Your task to perform on an android device: Search for the new steph curry shoes on Amazon. Image 0: 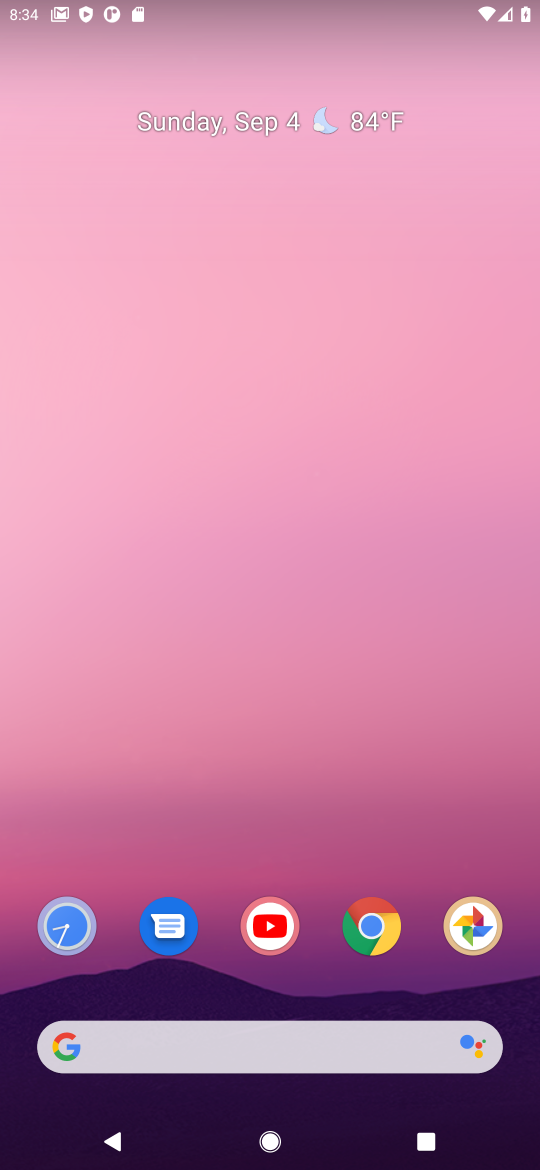
Step 0: click (241, 1042)
Your task to perform on an android device: Search for the new steph curry shoes on Amazon. Image 1: 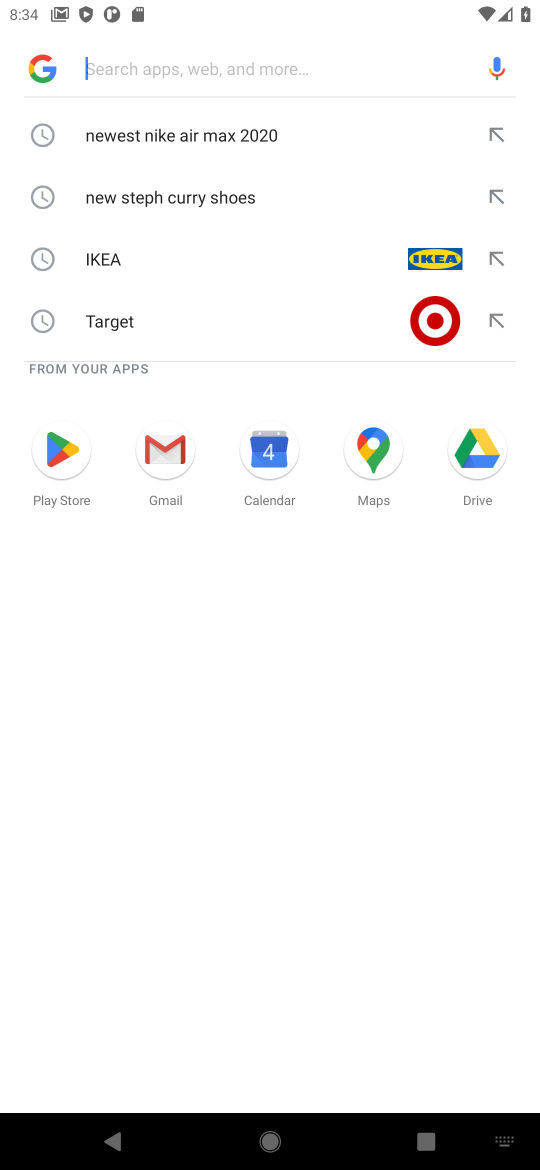
Step 1: type "amazon"
Your task to perform on an android device: Search for the new steph curry shoes on Amazon. Image 2: 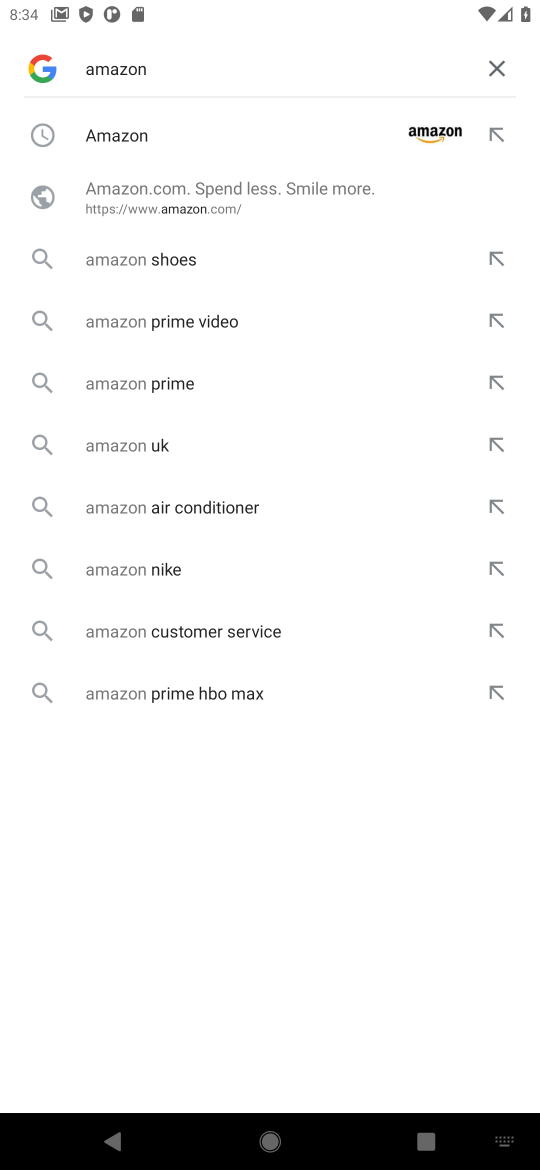
Step 2: click (104, 134)
Your task to perform on an android device: Search for the new steph curry shoes on Amazon. Image 3: 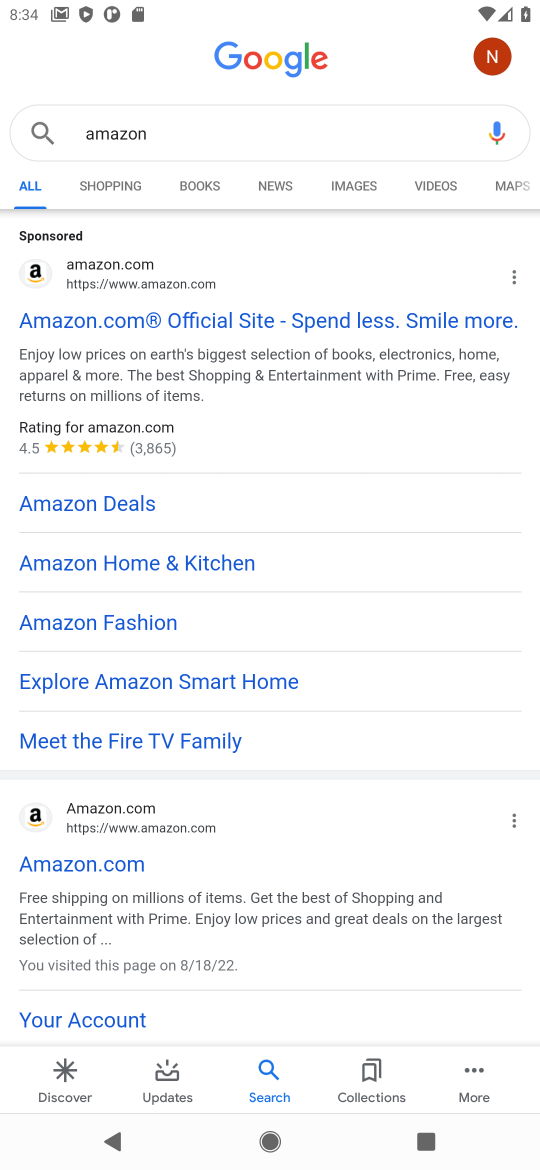
Step 3: click (93, 308)
Your task to perform on an android device: Search for the new steph curry shoes on Amazon. Image 4: 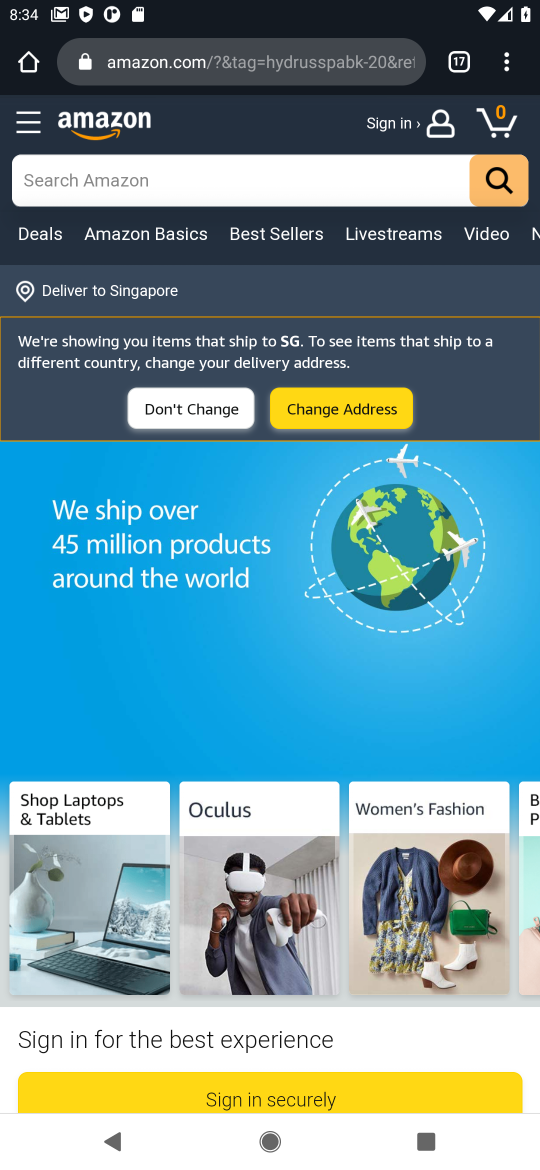
Step 4: click (278, 192)
Your task to perform on an android device: Search for the new steph curry shoes on Amazon. Image 5: 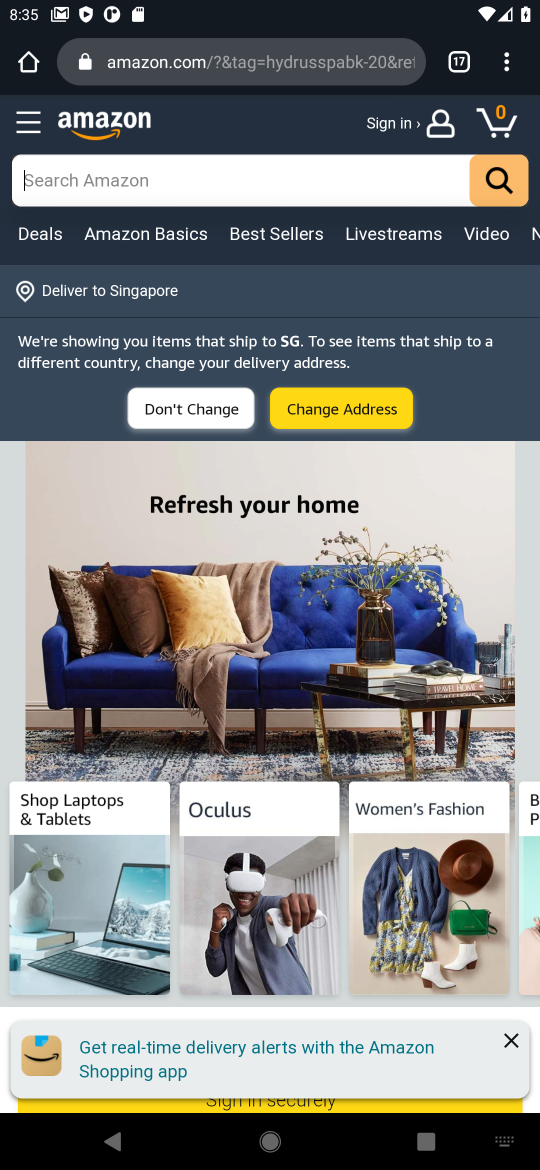
Step 5: type "new steph curry shoes"
Your task to perform on an android device: Search for the new steph curry shoes on Amazon. Image 6: 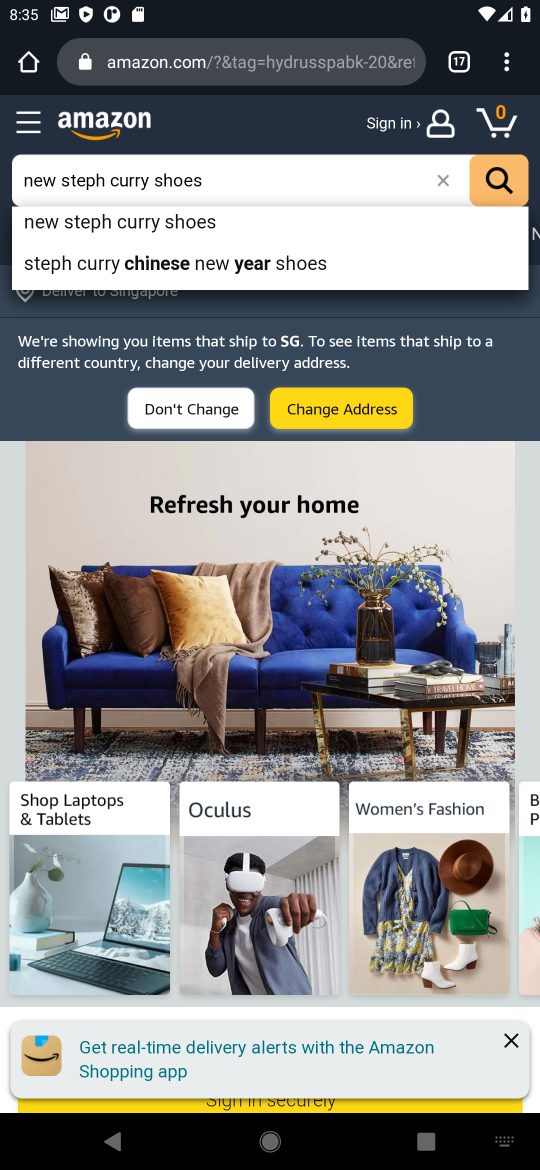
Step 6: click (493, 178)
Your task to perform on an android device: Search for the new steph curry shoes on Amazon. Image 7: 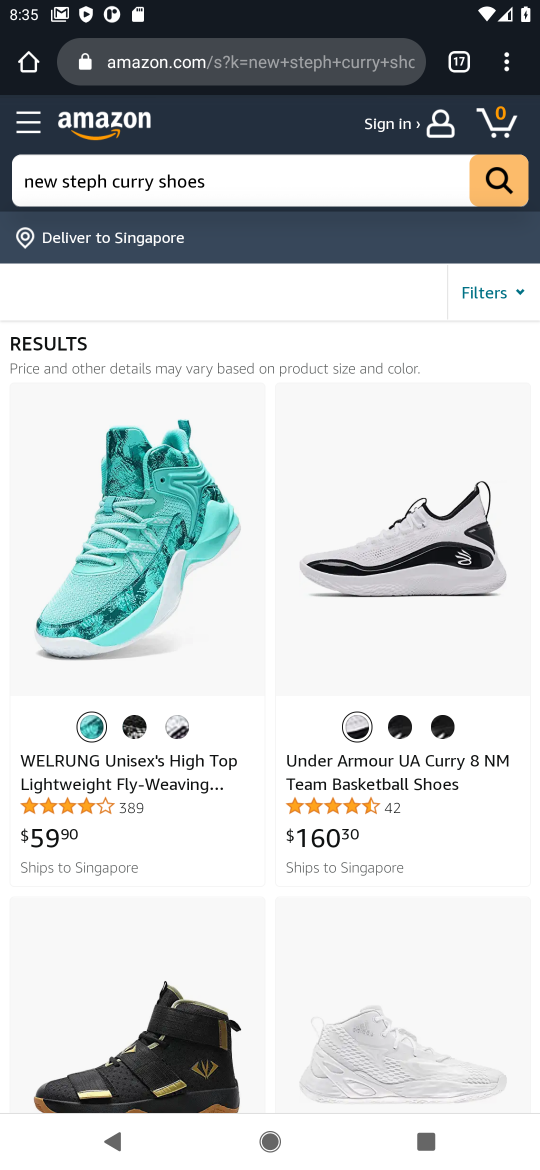
Step 7: task complete